Your task to perform on an android device: Search for "usb-a to usb-b" on walmart, select the first entry, add it to the cart, then select checkout. Image 0: 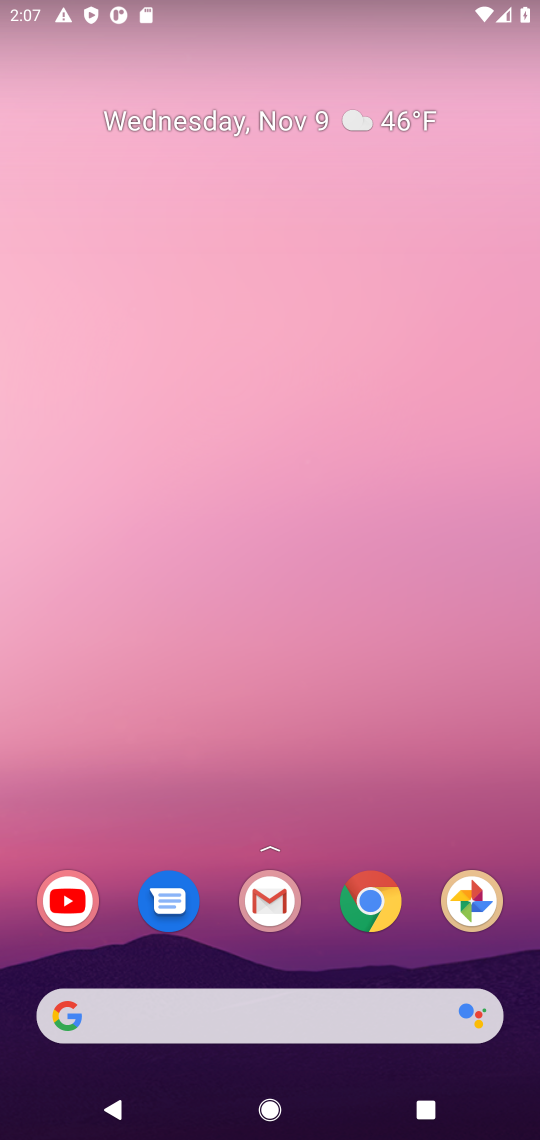
Step 0: click (377, 909)
Your task to perform on an android device: Search for "usb-a to usb-b" on walmart, select the first entry, add it to the cart, then select checkout. Image 1: 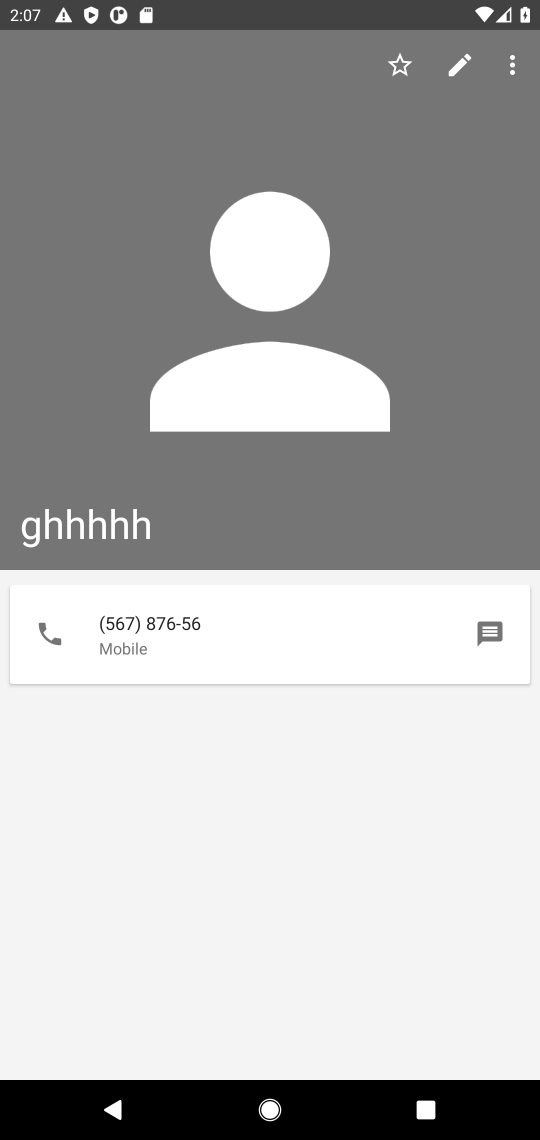
Step 1: press home button
Your task to perform on an android device: Search for "usb-a to usb-b" on walmart, select the first entry, add it to the cart, then select checkout. Image 2: 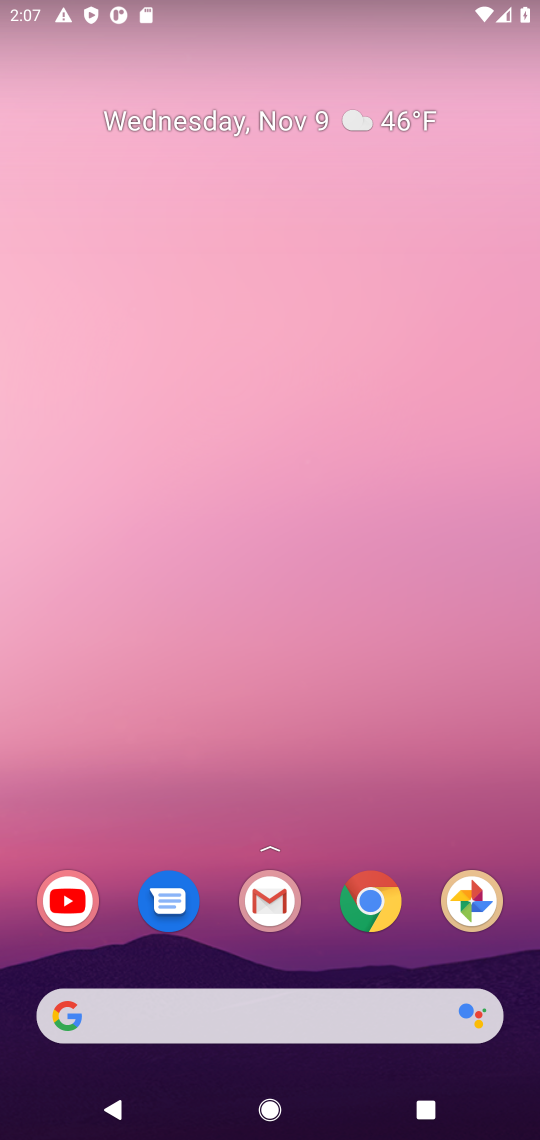
Step 2: click (390, 891)
Your task to perform on an android device: Search for "usb-a to usb-b" on walmart, select the first entry, add it to the cart, then select checkout. Image 3: 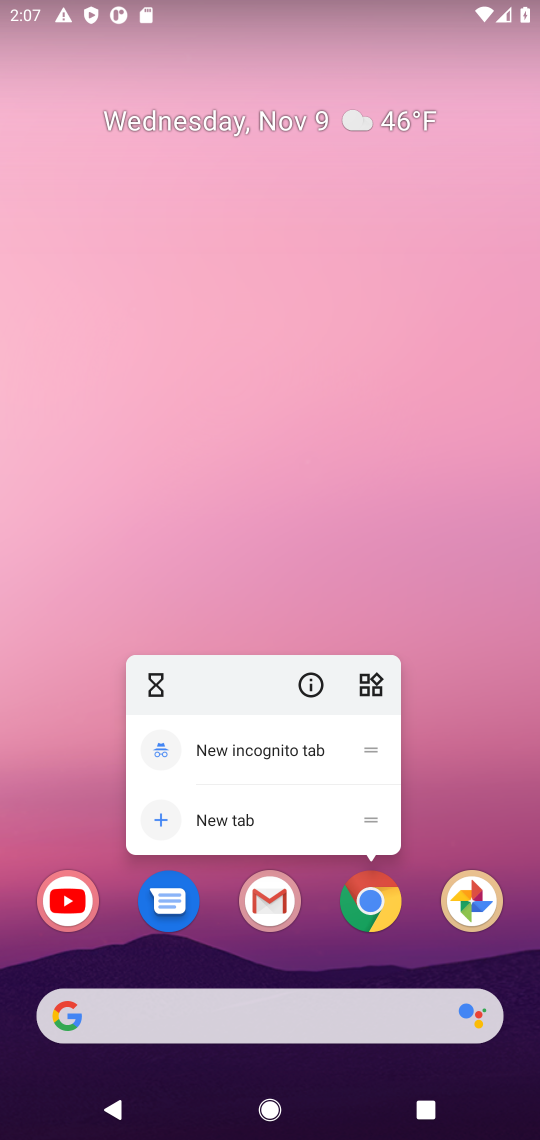
Step 3: click (385, 900)
Your task to perform on an android device: Search for "usb-a to usb-b" on walmart, select the first entry, add it to the cart, then select checkout. Image 4: 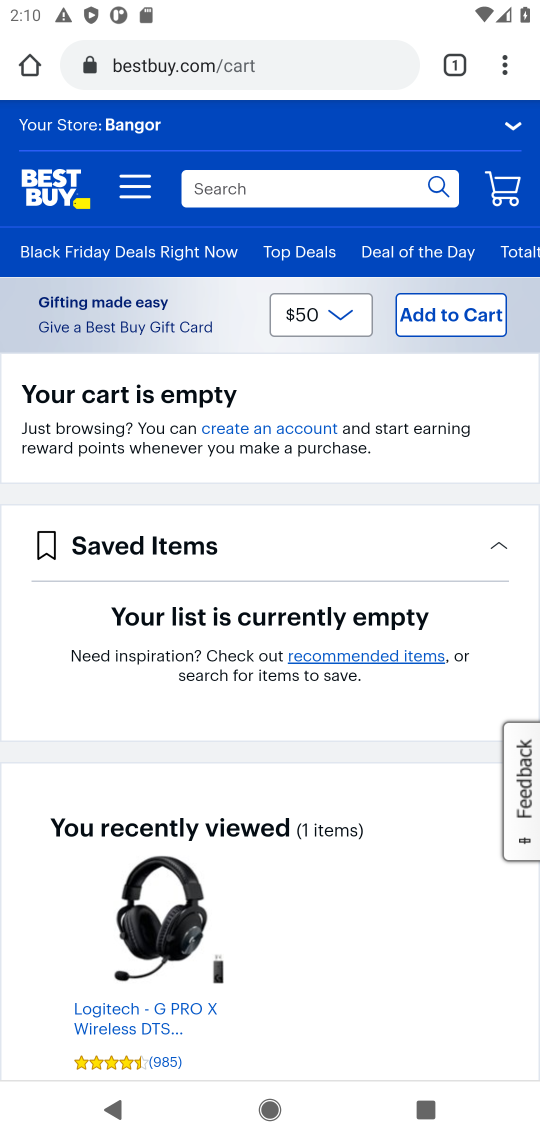
Step 4: click (217, 60)
Your task to perform on an android device: Search for "usb-a to usb-b" on walmart, select the first entry, add it to the cart, then select checkout. Image 5: 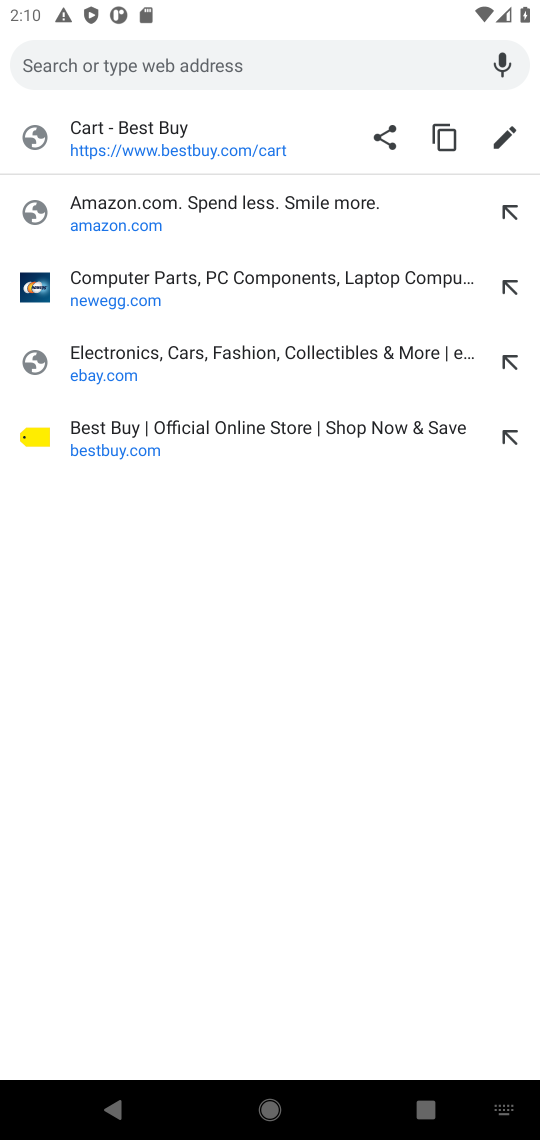
Step 5: type "bestbuy"
Your task to perform on an android device: Search for "usb-a to usb-b" on walmart, select the first entry, add it to the cart, then select checkout. Image 6: 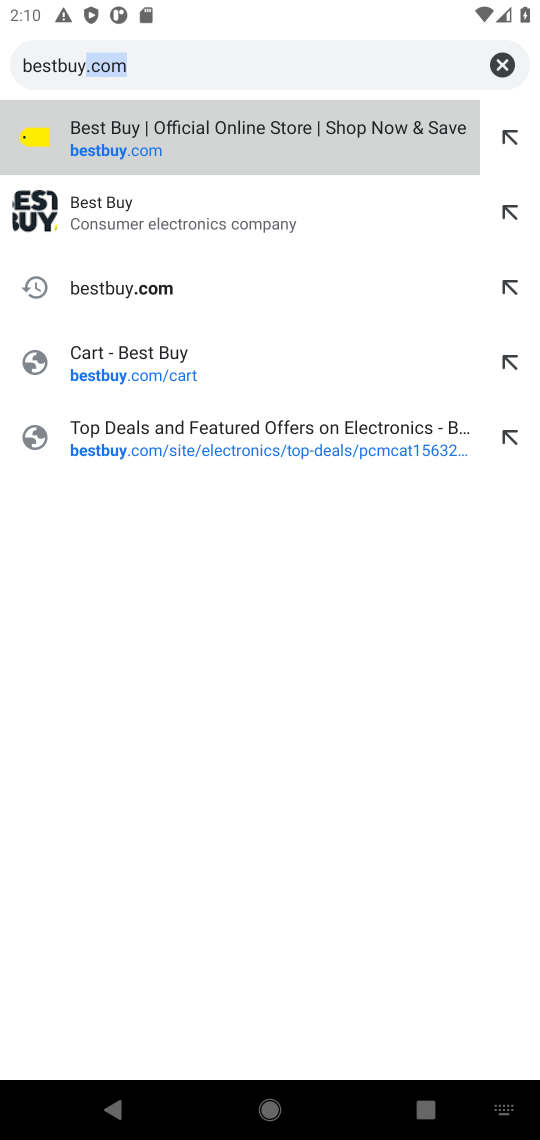
Step 6: click (230, 72)
Your task to perform on an android device: Search for "usb-a to usb-b" on walmart, select the first entry, add it to the cart, then select checkout. Image 7: 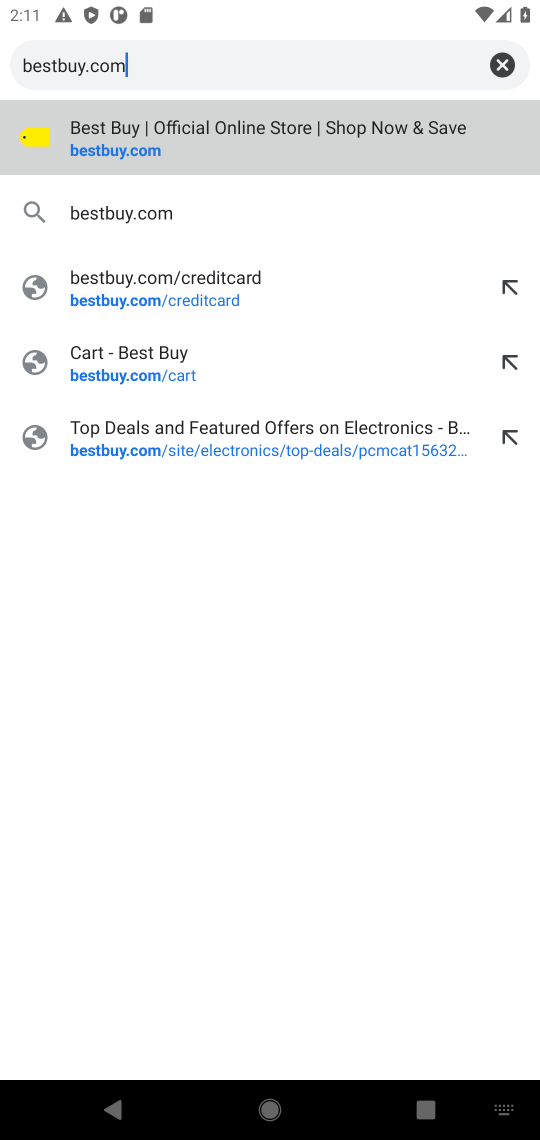
Step 7: click (497, 69)
Your task to perform on an android device: Search for "usb-a to usb-b" on walmart, select the first entry, add it to the cart, then select checkout. Image 8: 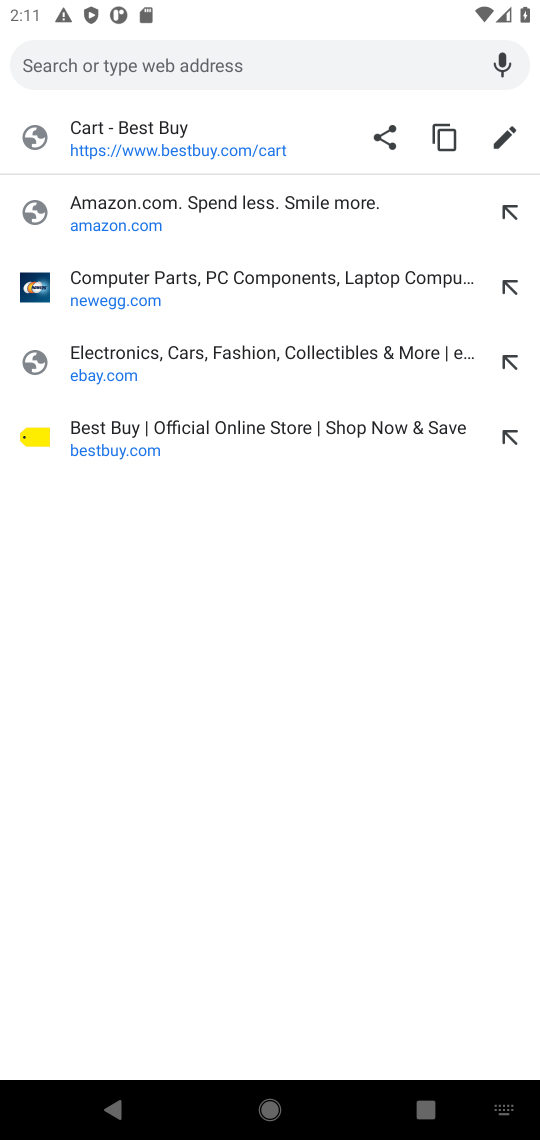
Step 8: type "walmart"
Your task to perform on an android device: Search for "usb-a to usb-b" on walmart, select the first entry, add it to the cart, then select checkout. Image 9: 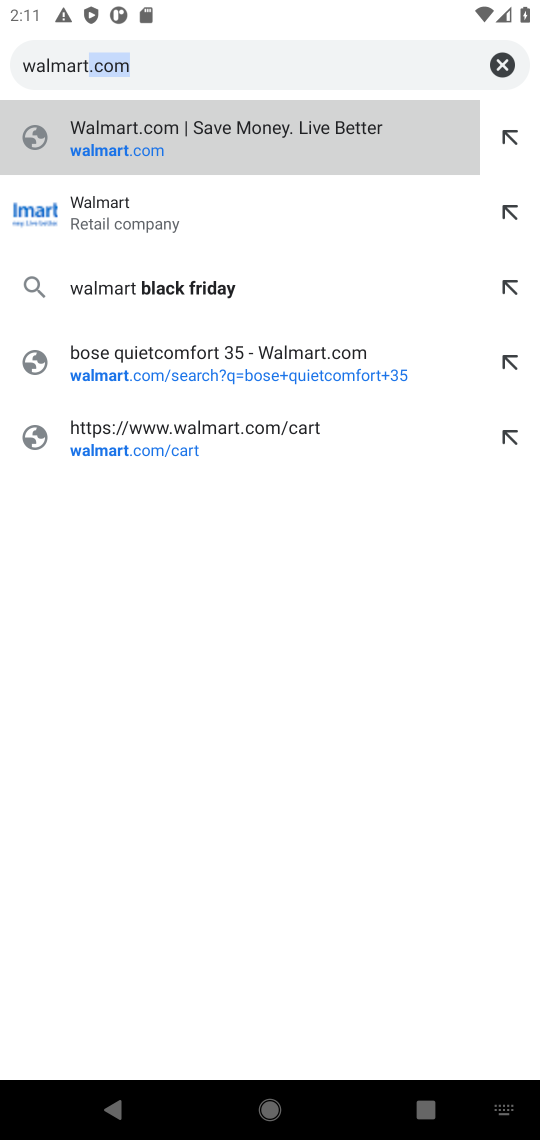
Step 9: click (293, 71)
Your task to perform on an android device: Search for "usb-a to usb-b" on walmart, select the first entry, add it to the cart, then select checkout. Image 10: 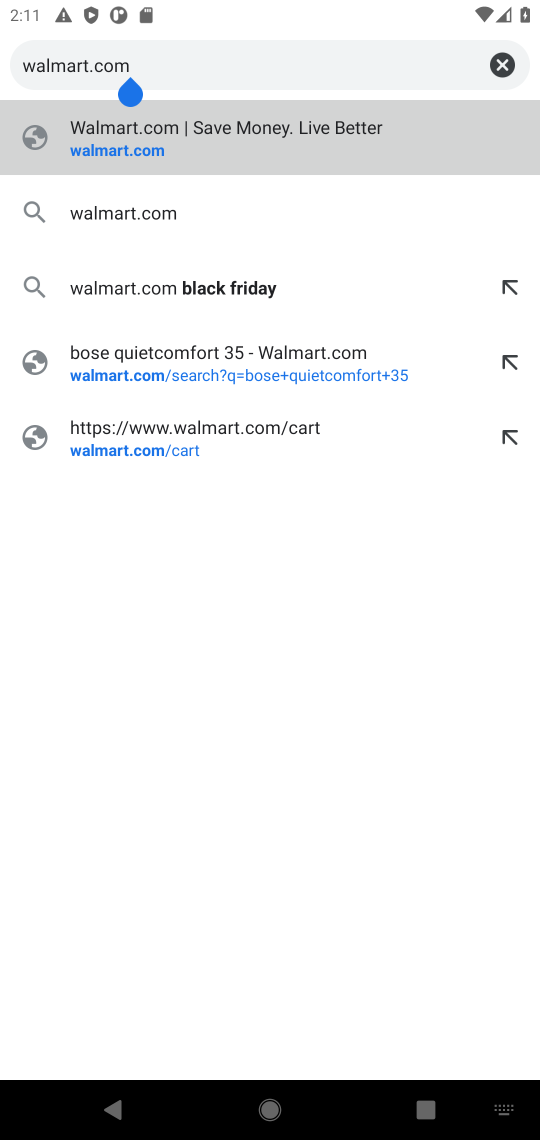
Step 10: click (165, 208)
Your task to perform on an android device: Search for "usb-a to usb-b" on walmart, select the first entry, add it to the cart, then select checkout. Image 11: 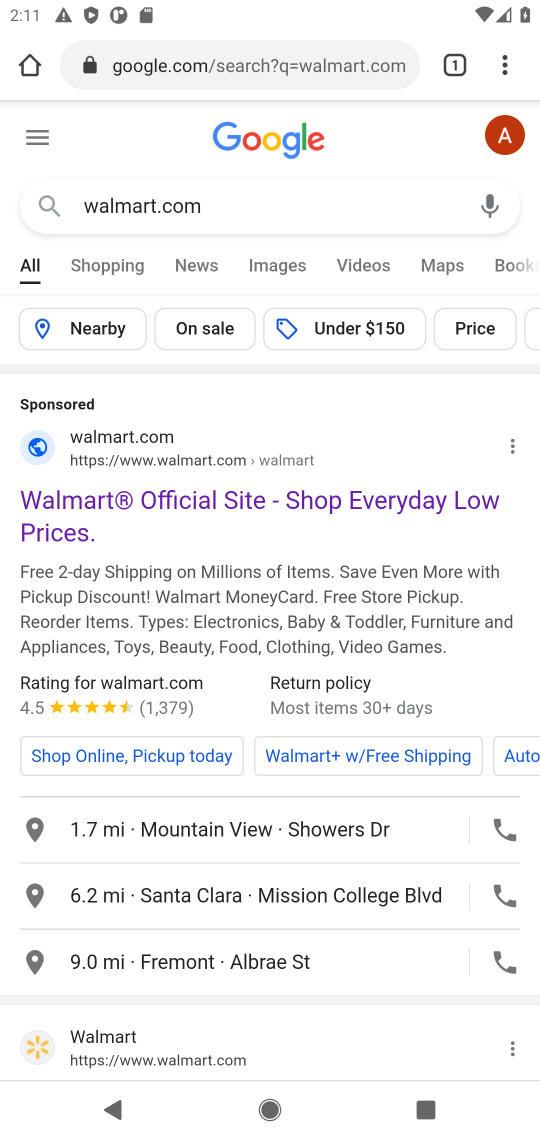
Step 11: click (226, 463)
Your task to perform on an android device: Search for "usb-a to usb-b" on walmart, select the first entry, add it to the cart, then select checkout. Image 12: 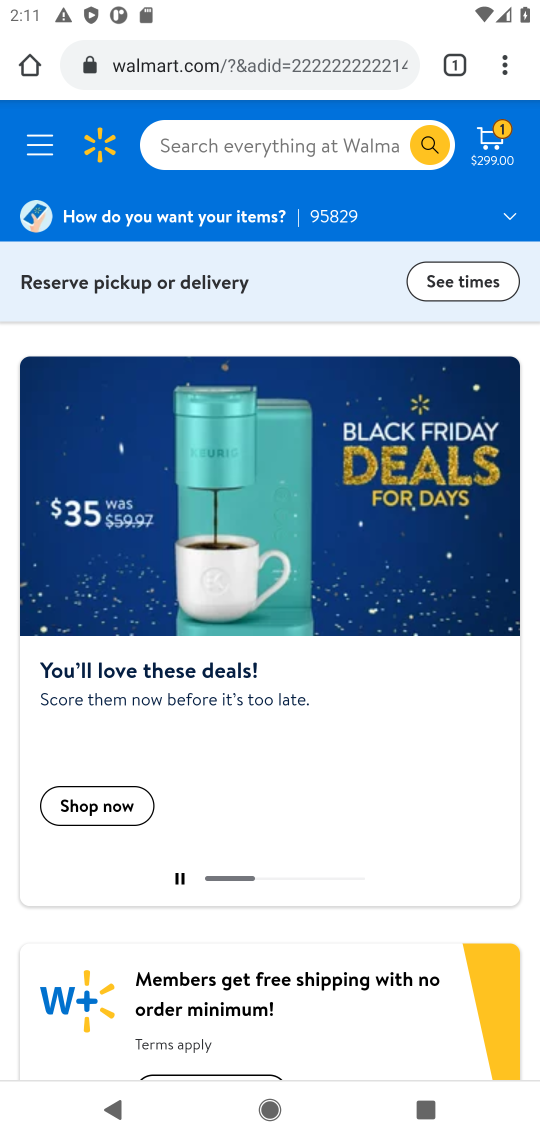
Step 12: click (342, 131)
Your task to perform on an android device: Search for "usb-a to usb-b" on walmart, select the first entry, add it to the cart, then select checkout. Image 13: 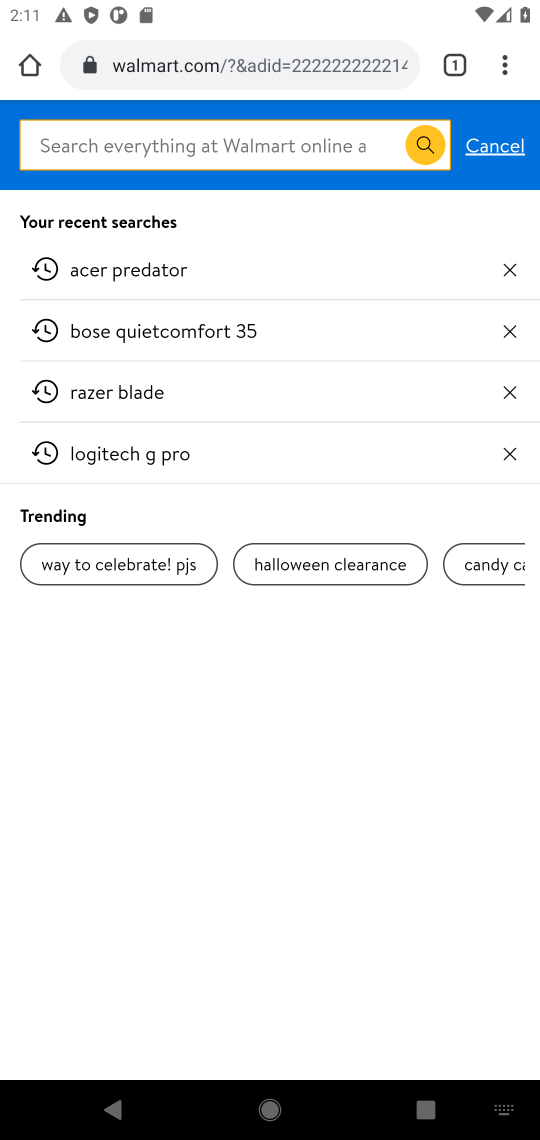
Step 13: type "usb-a to usb-b"
Your task to perform on an android device: Search for "usb-a to usb-b" on walmart, select the first entry, add it to the cart, then select checkout. Image 14: 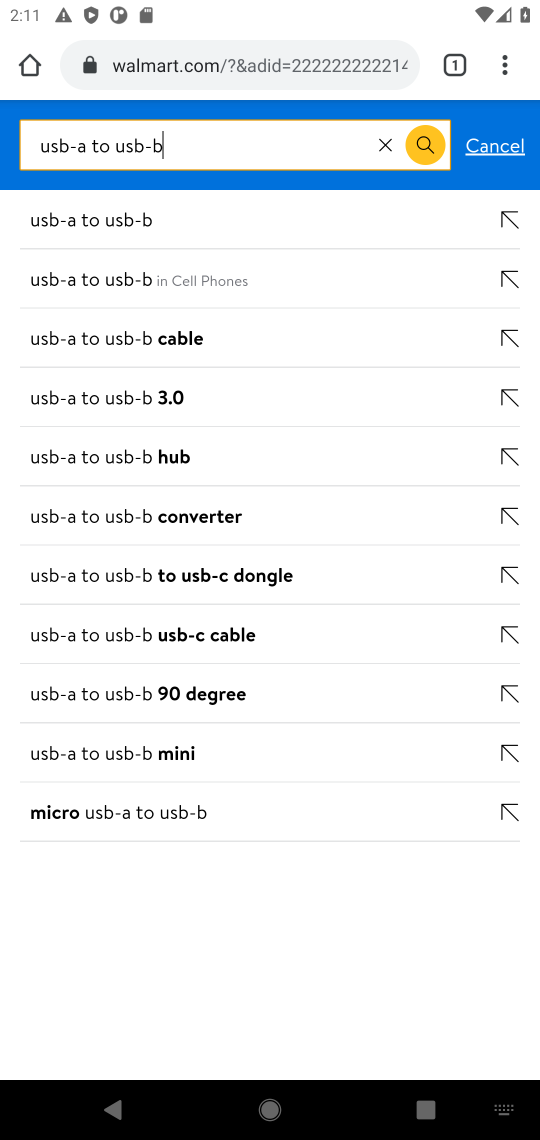
Step 14: click (103, 207)
Your task to perform on an android device: Search for "usb-a to usb-b" on walmart, select the first entry, add it to the cart, then select checkout. Image 15: 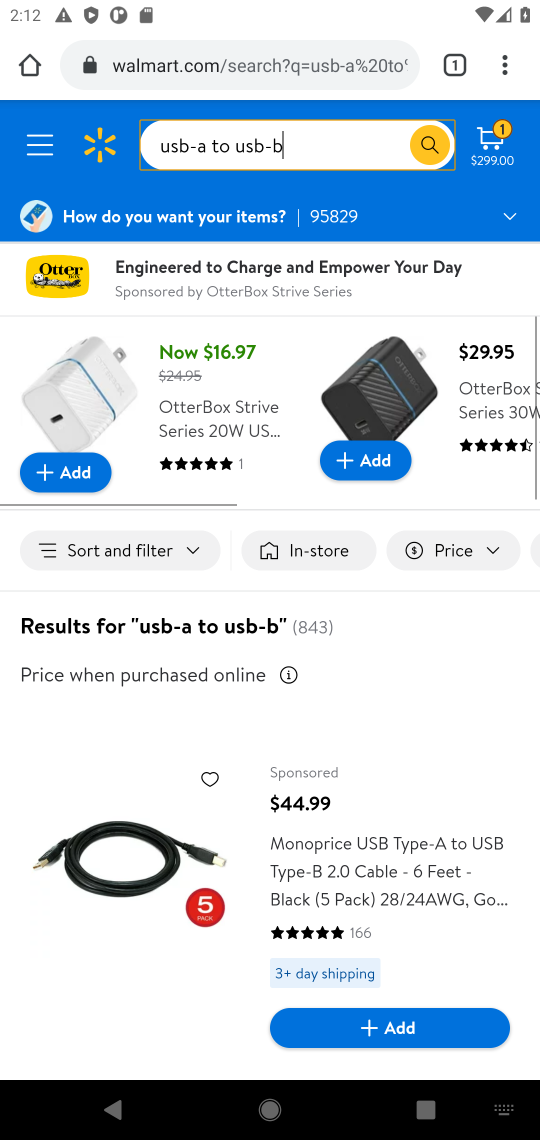
Step 15: click (148, 850)
Your task to perform on an android device: Search for "usb-a to usb-b" on walmart, select the first entry, add it to the cart, then select checkout. Image 16: 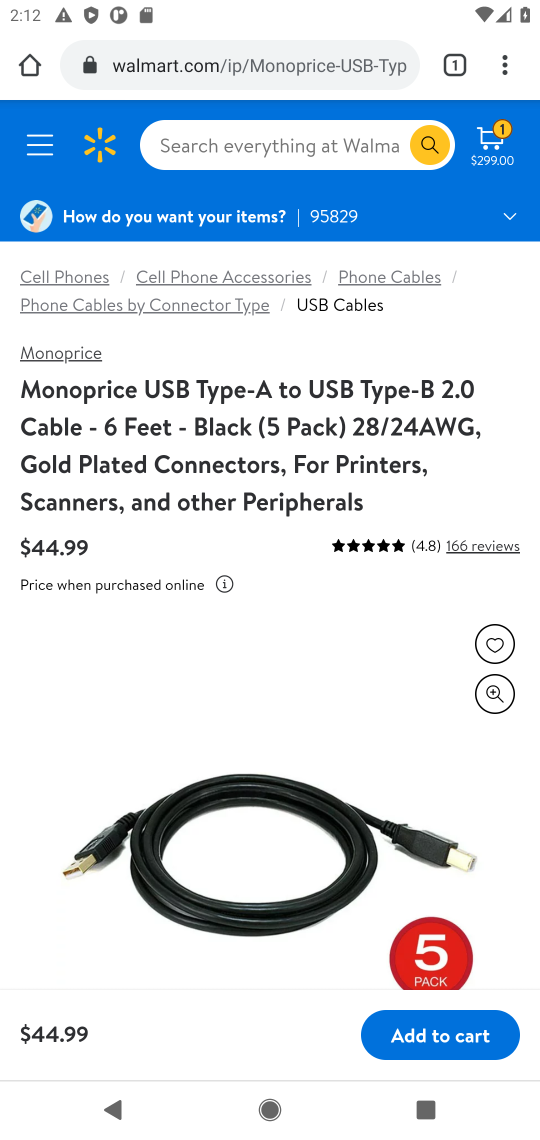
Step 16: click (464, 1051)
Your task to perform on an android device: Search for "usb-a to usb-b" on walmart, select the first entry, add it to the cart, then select checkout. Image 17: 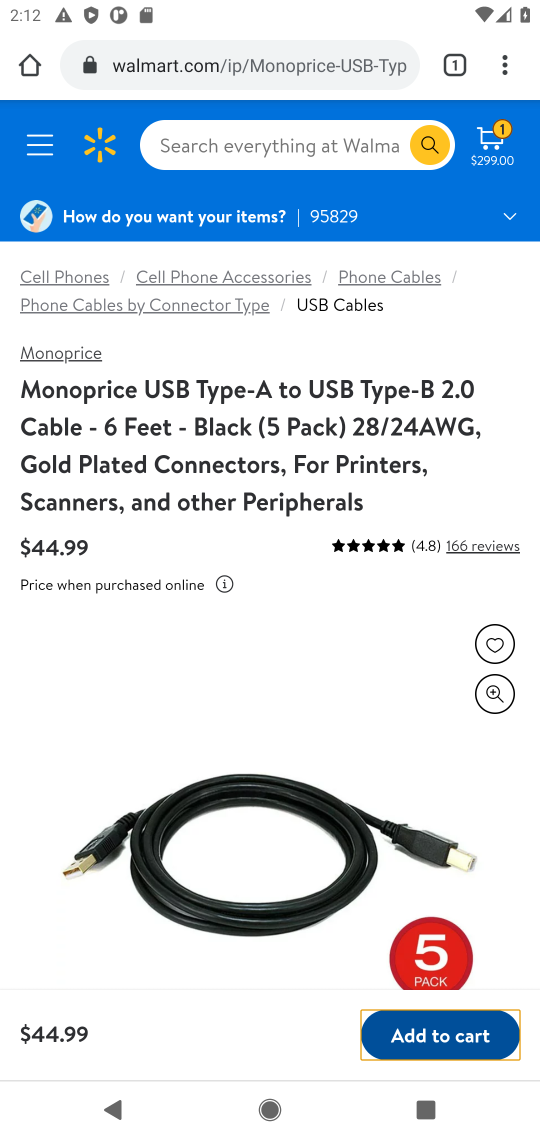
Step 17: drag from (278, 807) to (448, 402)
Your task to perform on an android device: Search for "usb-a to usb-b" on walmart, select the first entry, add it to the cart, then select checkout. Image 18: 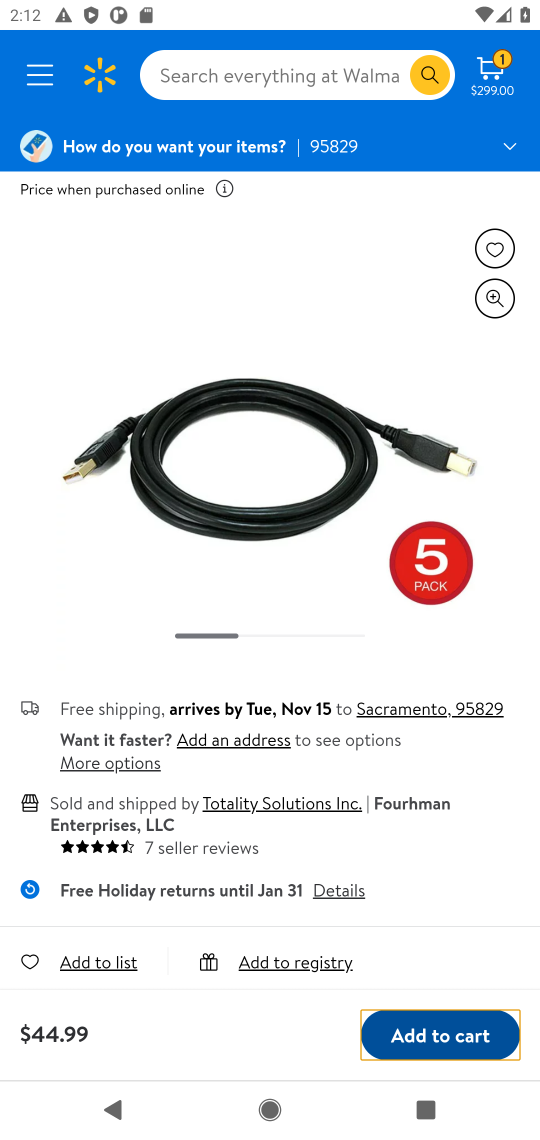
Step 18: click (436, 1047)
Your task to perform on an android device: Search for "usb-a to usb-b" on walmart, select the first entry, add it to the cart, then select checkout. Image 19: 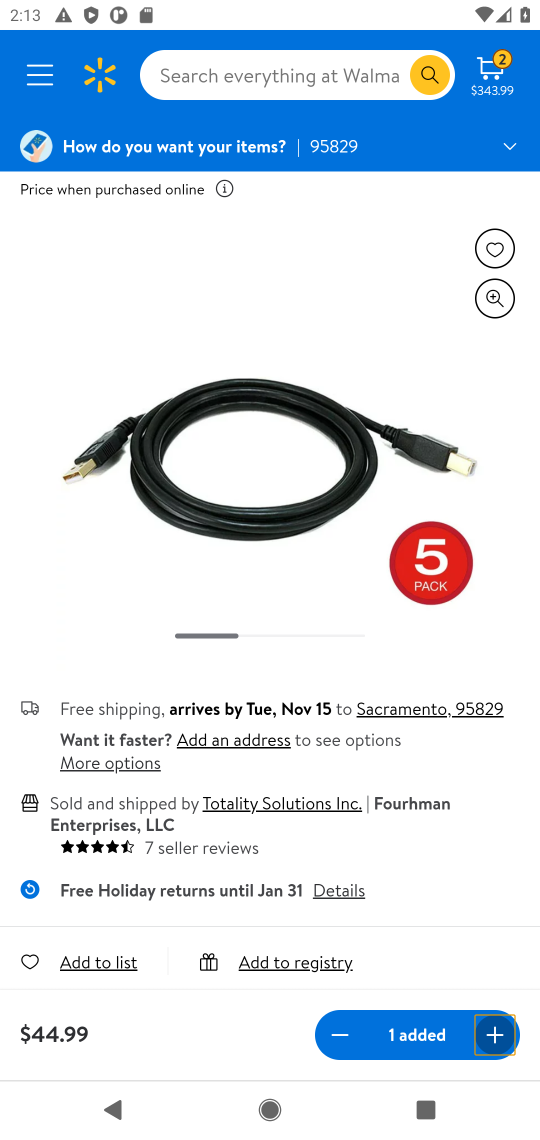
Step 19: click (480, 83)
Your task to perform on an android device: Search for "usb-a to usb-b" on walmart, select the first entry, add it to the cart, then select checkout. Image 20: 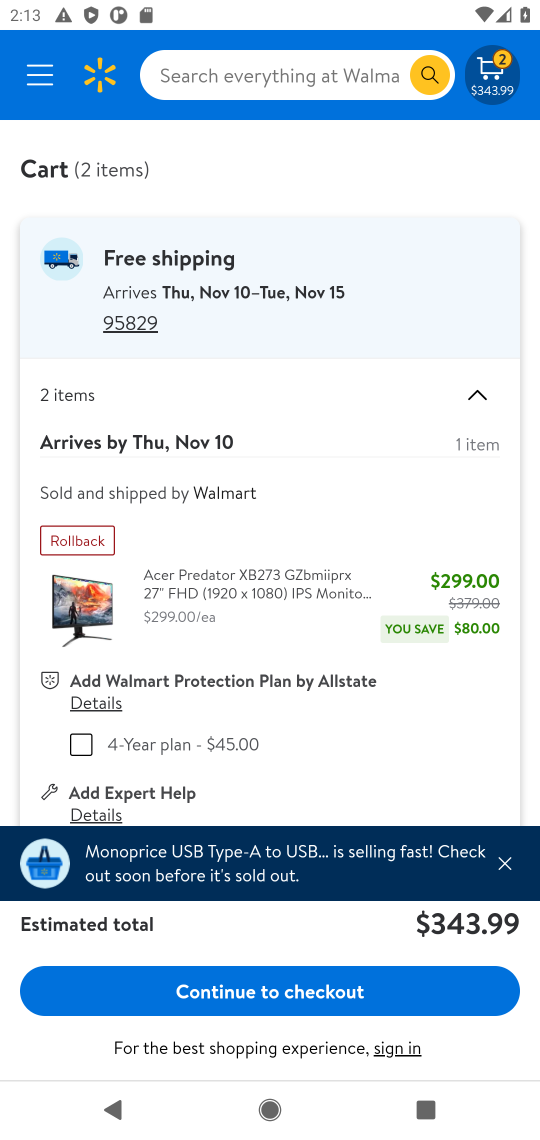
Step 20: click (389, 985)
Your task to perform on an android device: Search for "usb-a to usb-b" on walmart, select the first entry, add it to the cart, then select checkout. Image 21: 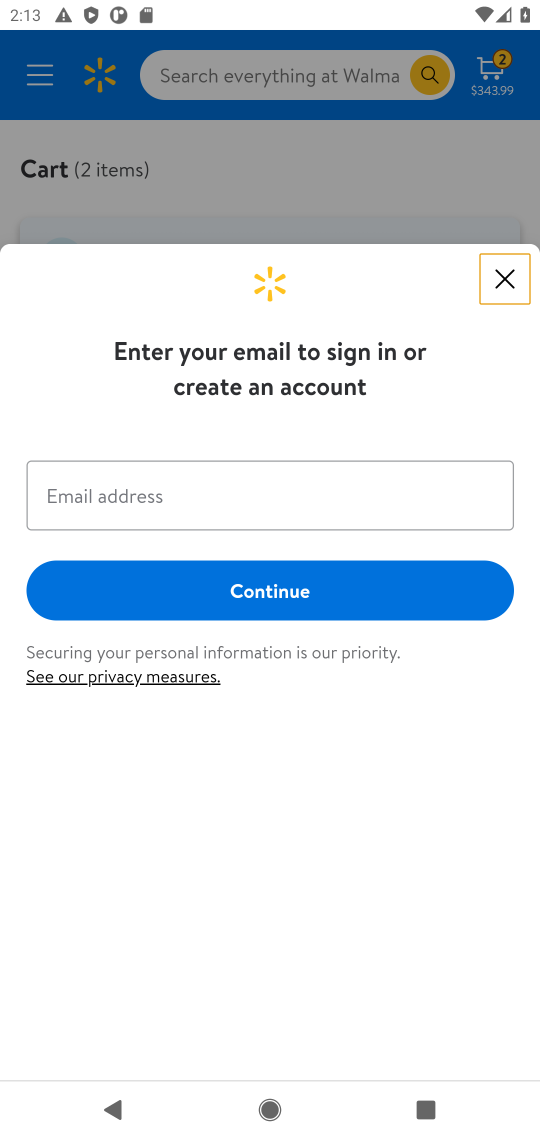
Step 21: task complete